Your task to perform on an android device: What's the weather going to be this weekend? Image 0: 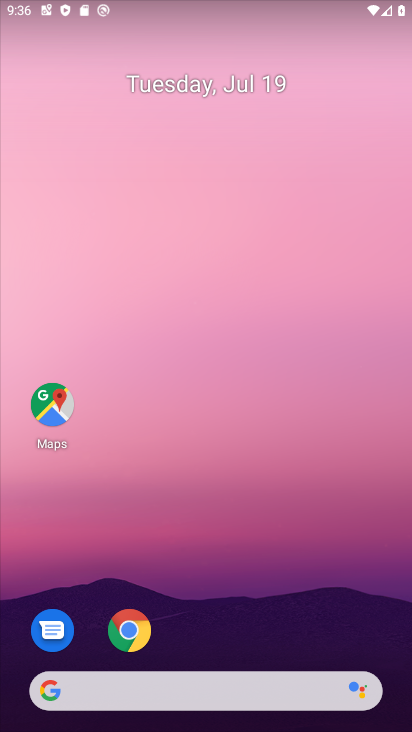
Step 0: drag from (221, 648) to (224, 37)
Your task to perform on an android device: What's the weather going to be this weekend? Image 1: 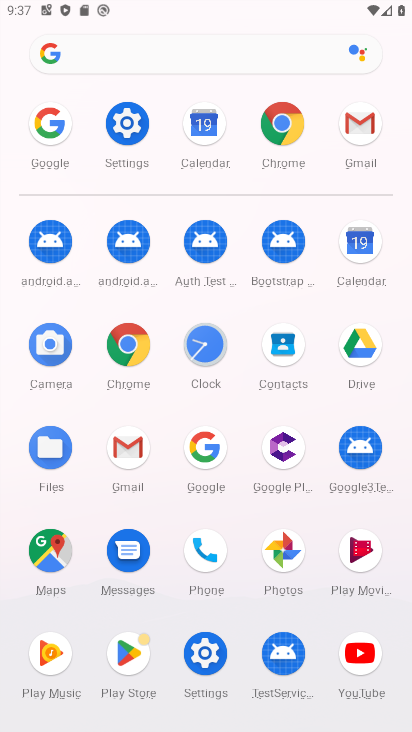
Step 1: click (201, 453)
Your task to perform on an android device: What's the weather going to be this weekend? Image 2: 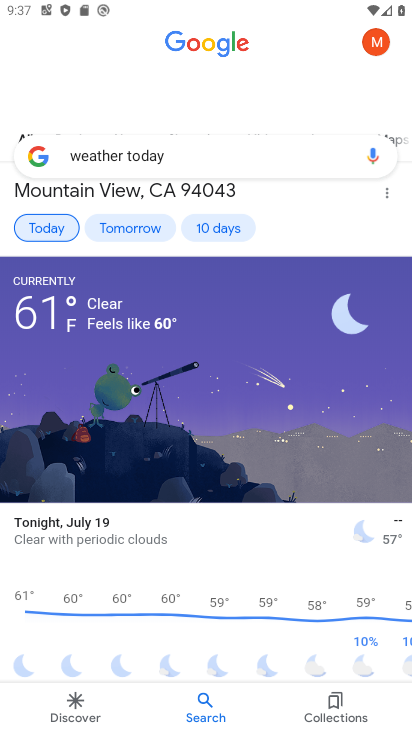
Step 2: click (248, 147)
Your task to perform on an android device: What's the weather going to be this weekend? Image 3: 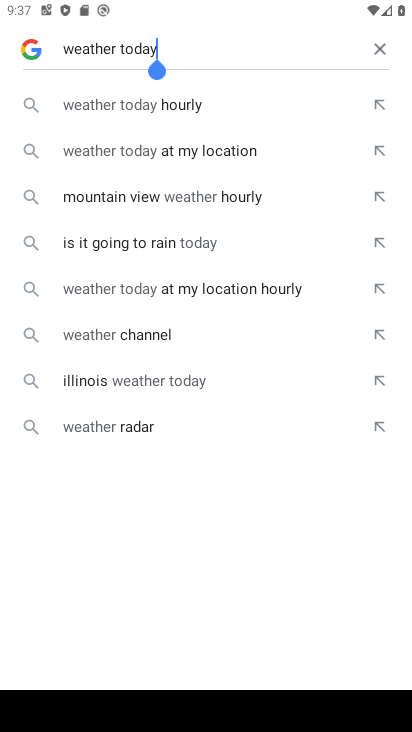
Step 3: click (377, 45)
Your task to perform on an android device: What's the weather going to be this weekend? Image 4: 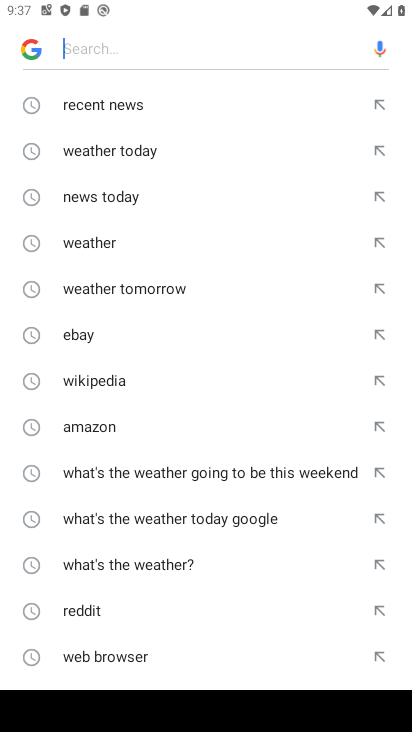
Step 4: click (220, 470)
Your task to perform on an android device: What's the weather going to be this weekend? Image 5: 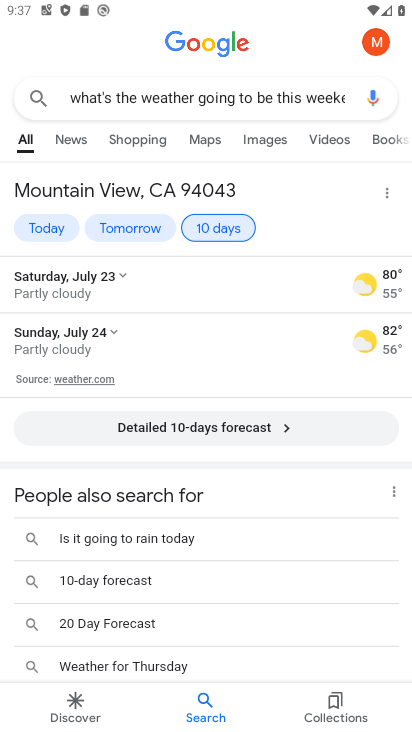
Step 5: task complete